Your task to perform on an android device: open app "Etsy: Buy & Sell Unique Items" (install if not already installed) Image 0: 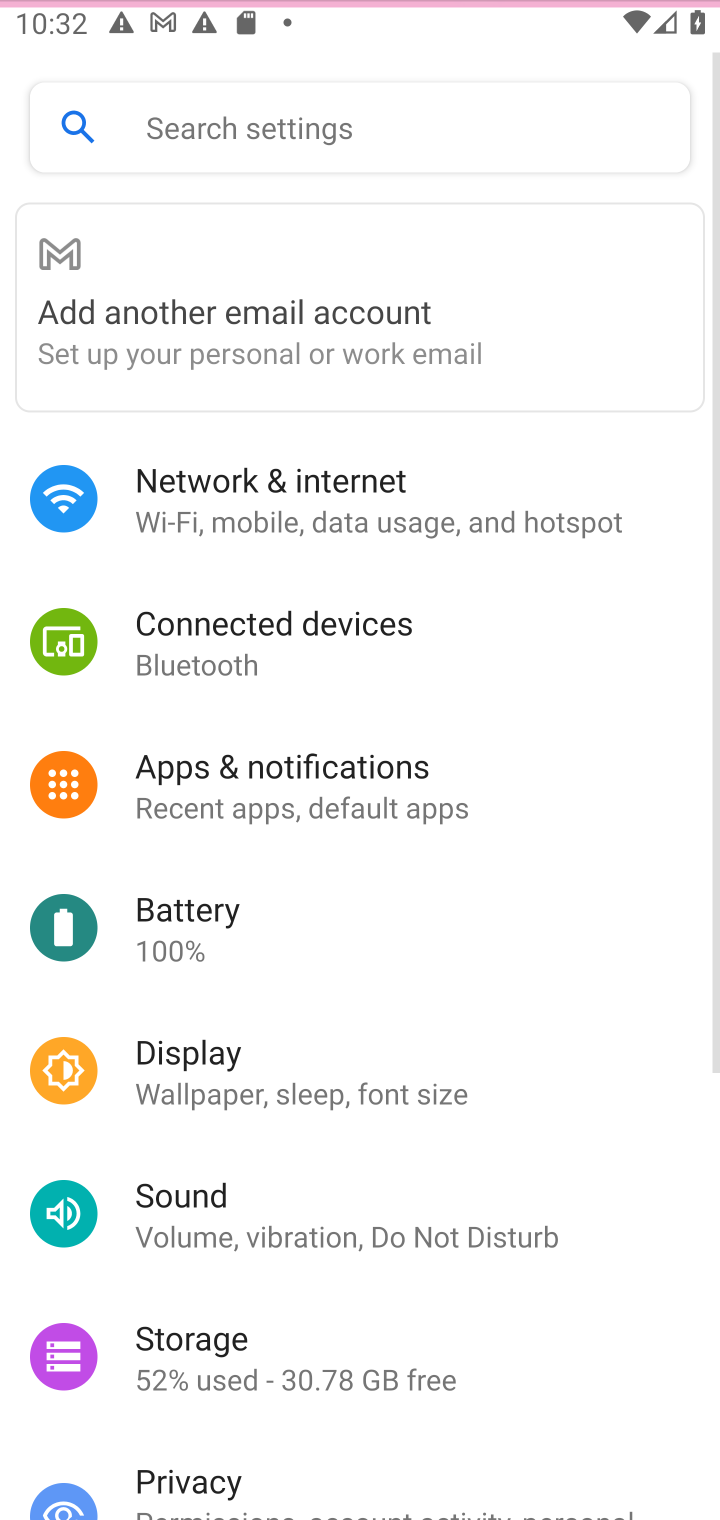
Step 0: press home button
Your task to perform on an android device: open app "Etsy: Buy & Sell Unique Items" (install if not already installed) Image 1: 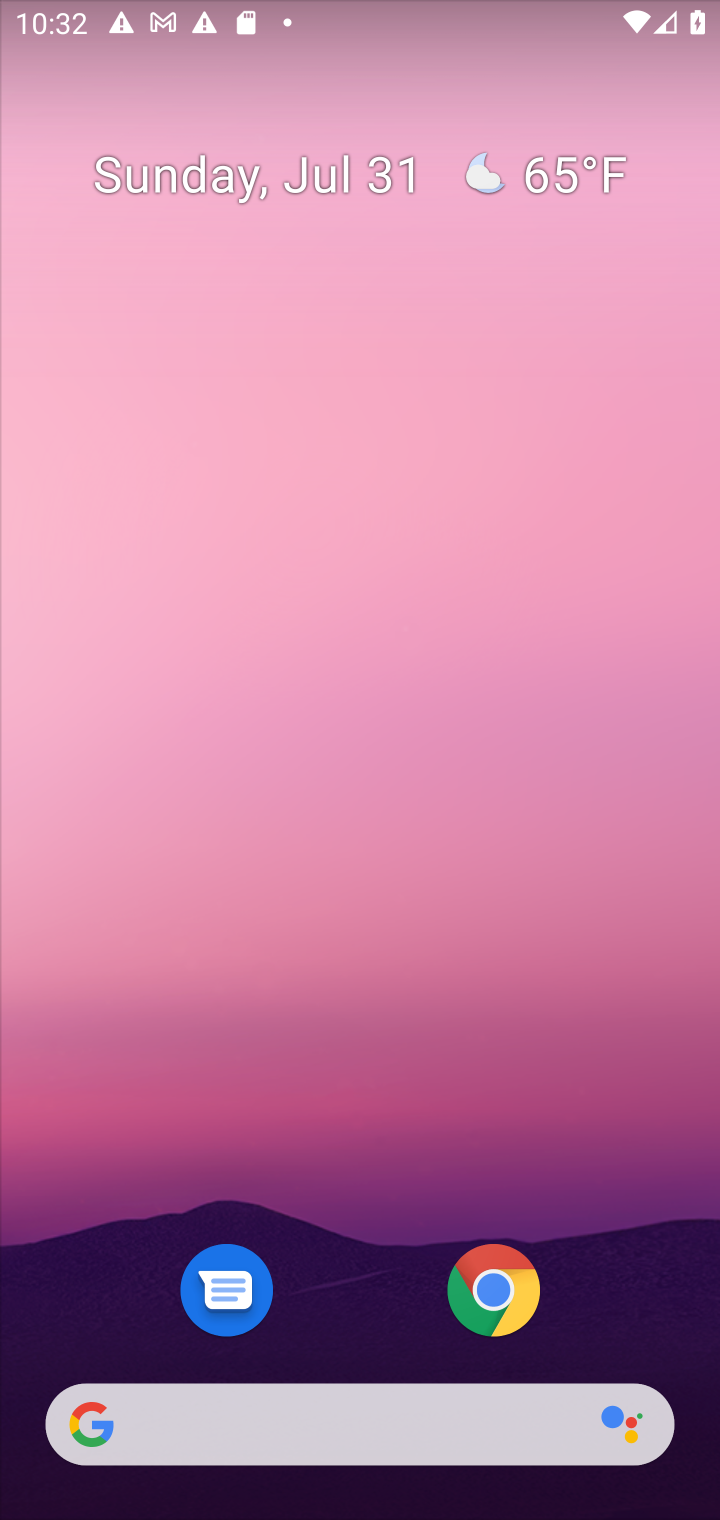
Step 1: drag from (616, 846) to (614, 145)
Your task to perform on an android device: open app "Etsy: Buy & Sell Unique Items" (install if not already installed) Image 2: 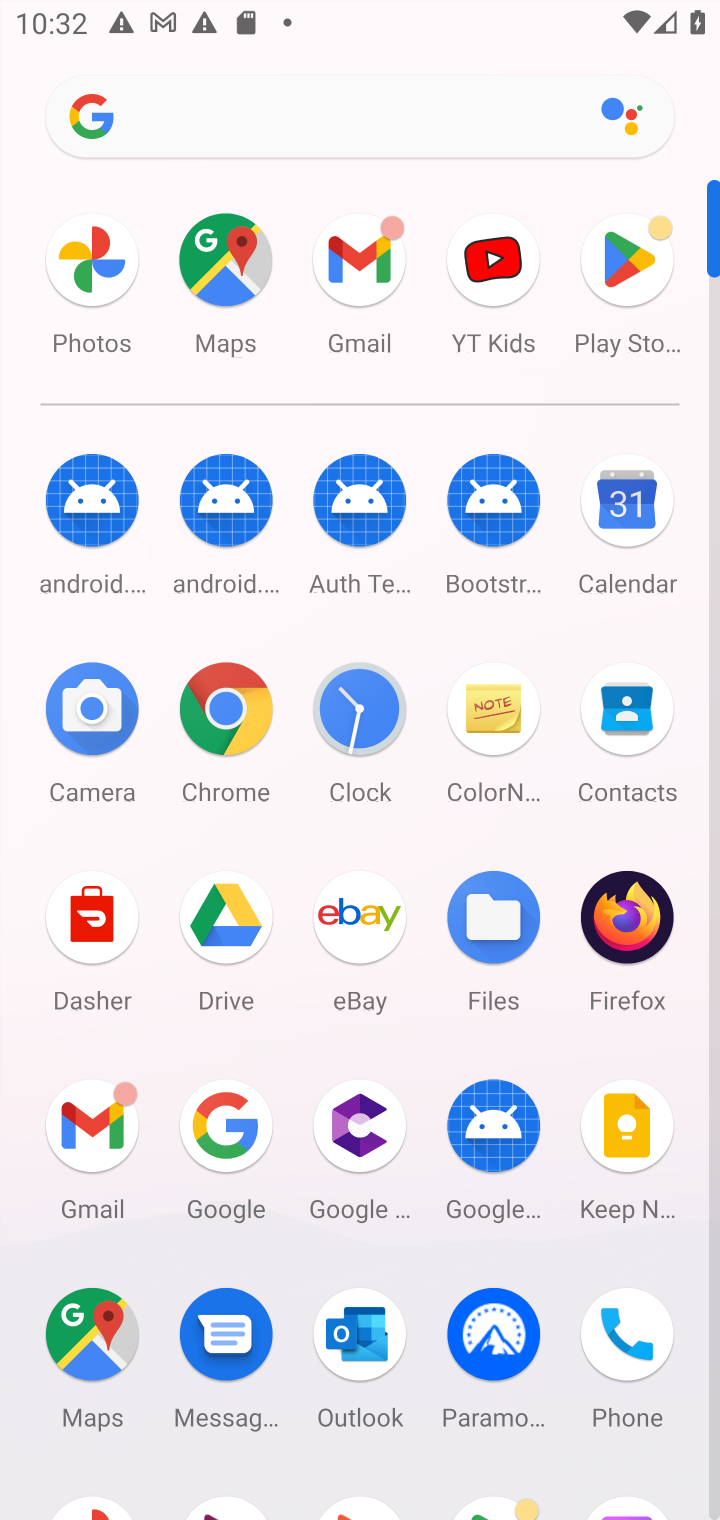
Step 2: click (641, 261)
Your task to perform on an android device: open app "Etsy: Buy & Sell Unique Items" (install if not already installed) Image 3: 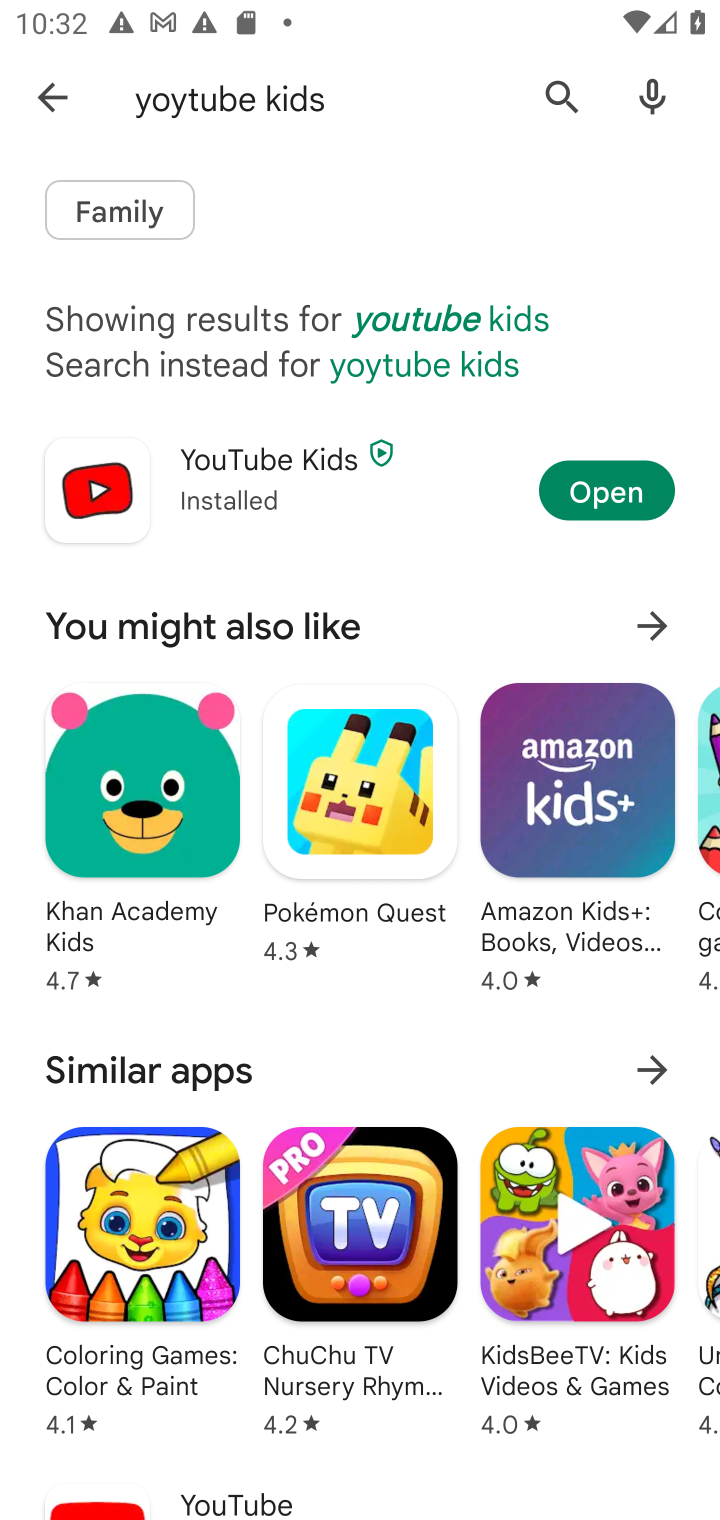
Step 3: click (556, 94)
Your task to perform on an android device: open app "Etsy: Buy & Sell Unique Items" (install if not already installed) Image 4: 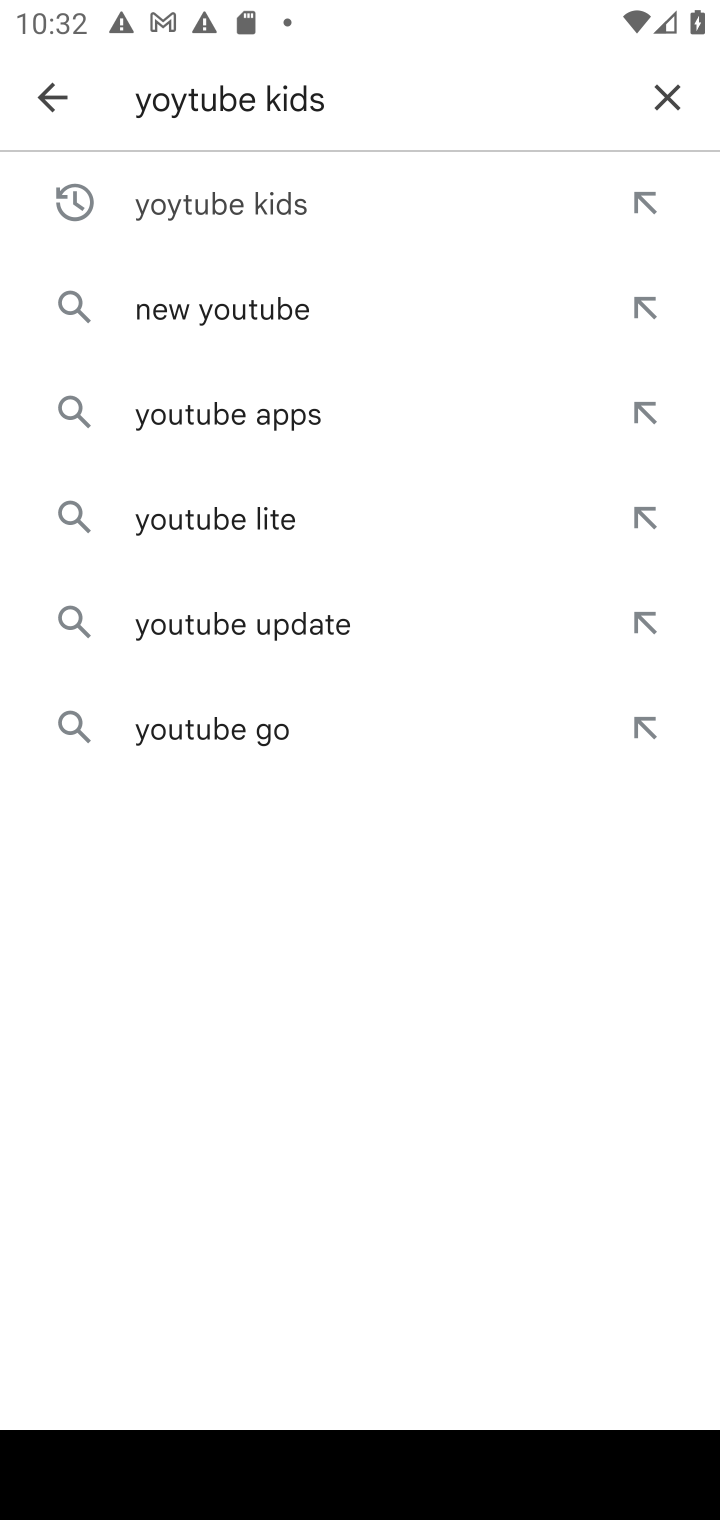
Step 4: click (668, 89)
Your task to perform on an android device: open app "Etsy: Buy & Sell Unique Items" (install if not already installed) Image 5: 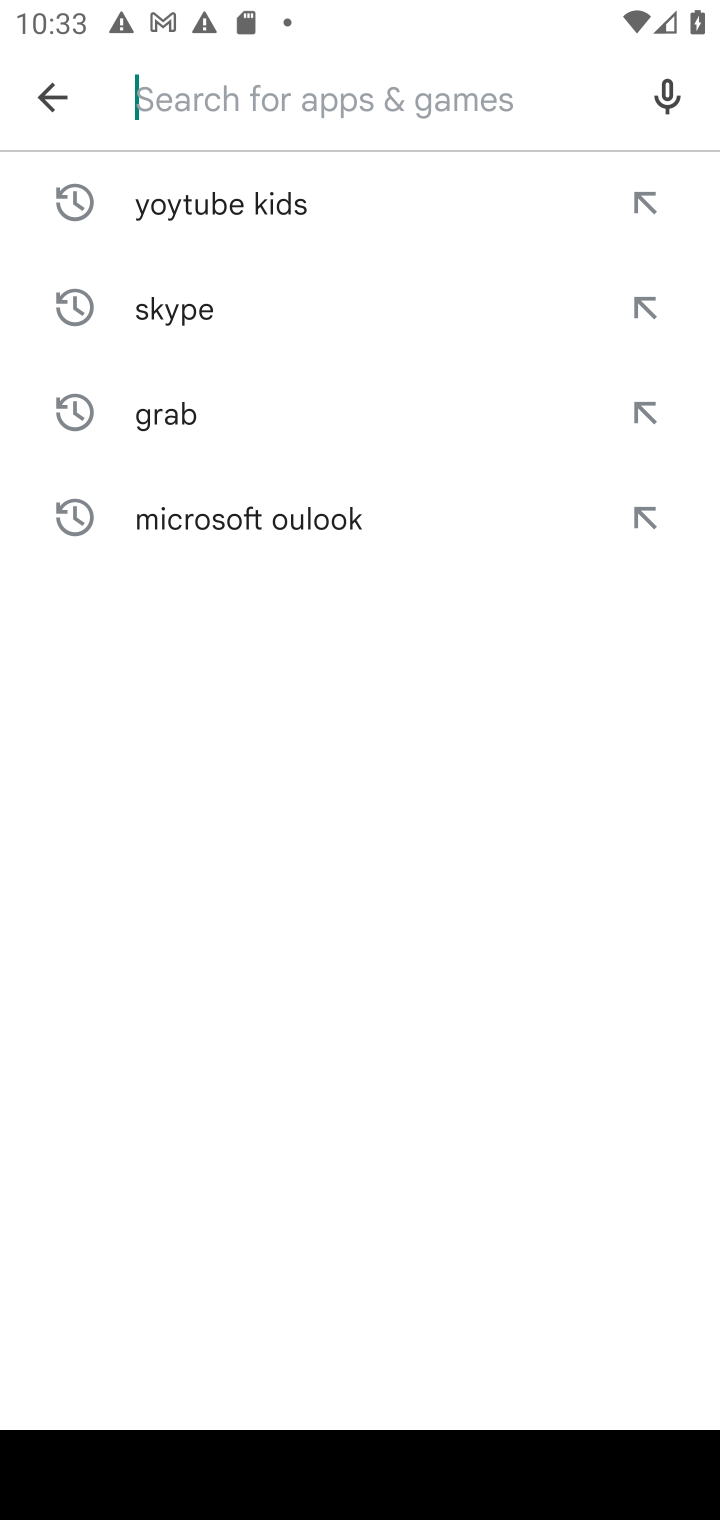
Step 5: type "Etsy: Buy & Sell Unique Items"
Your task to perform on an android device: open app "Etsy: Buy & Sell Unique Items" (install if not already installed) Image 6: 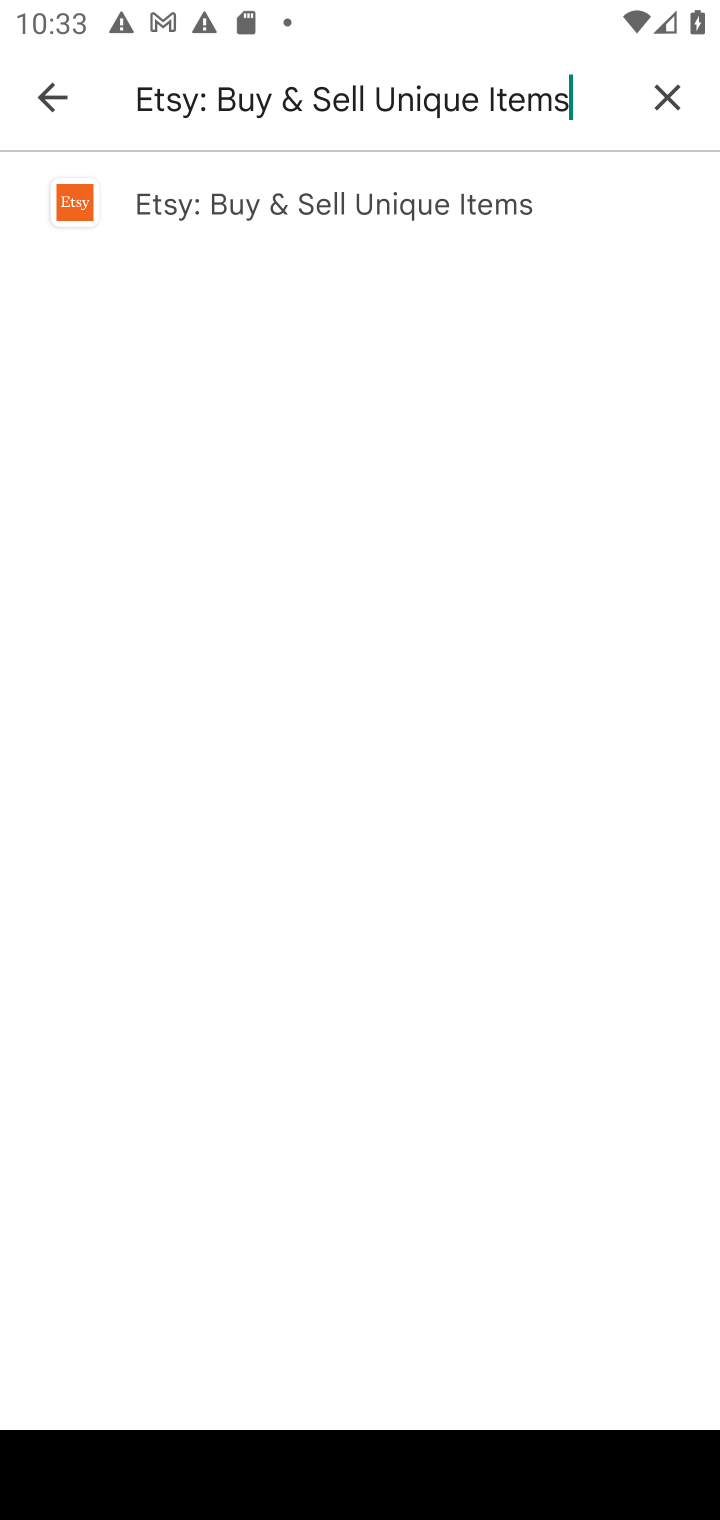
Step 6: click (362, 220)
Your task to perform on an android device: open app "Etsy: Buy & Sell Unique Items" (install if not already installed) Image 7: 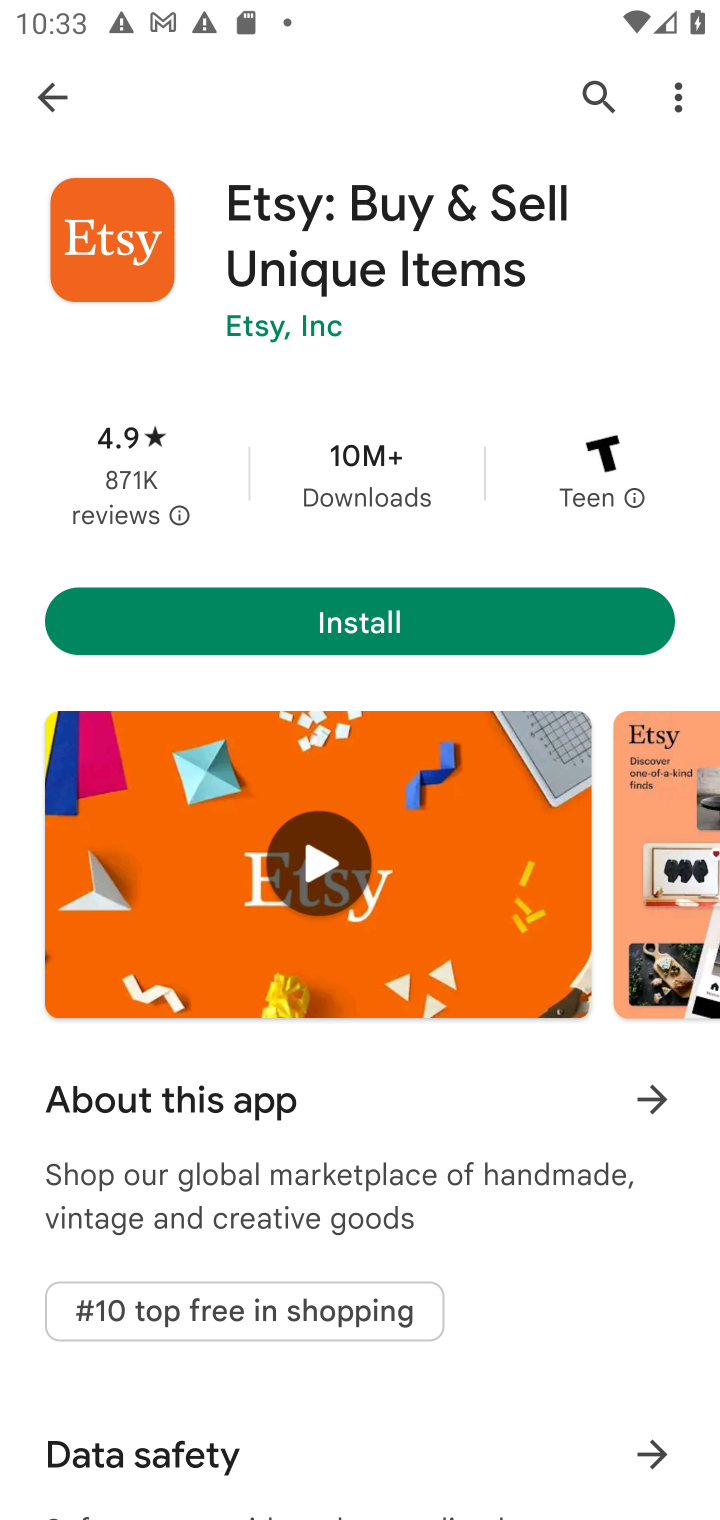
Step 7: click (453, 632)
Your task to perform on an android device: open app "Etsy: Buy & Sell Unique Items" (install if not already installed) Image 8: 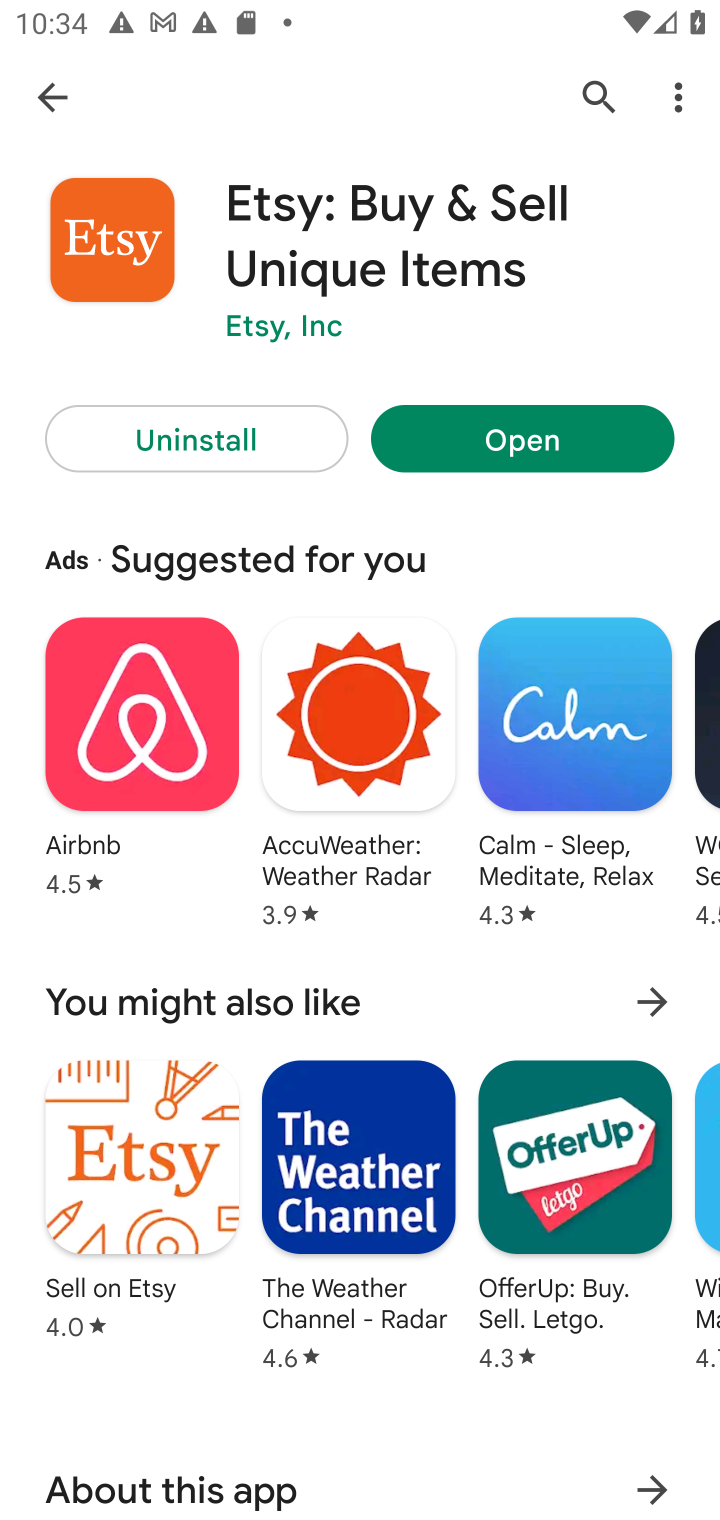
Step 8: click (574, 430)
Your task to perform on an android device: open app "Etsy: Buy & Sell Unique Items" (install if not already installed) Image 9: 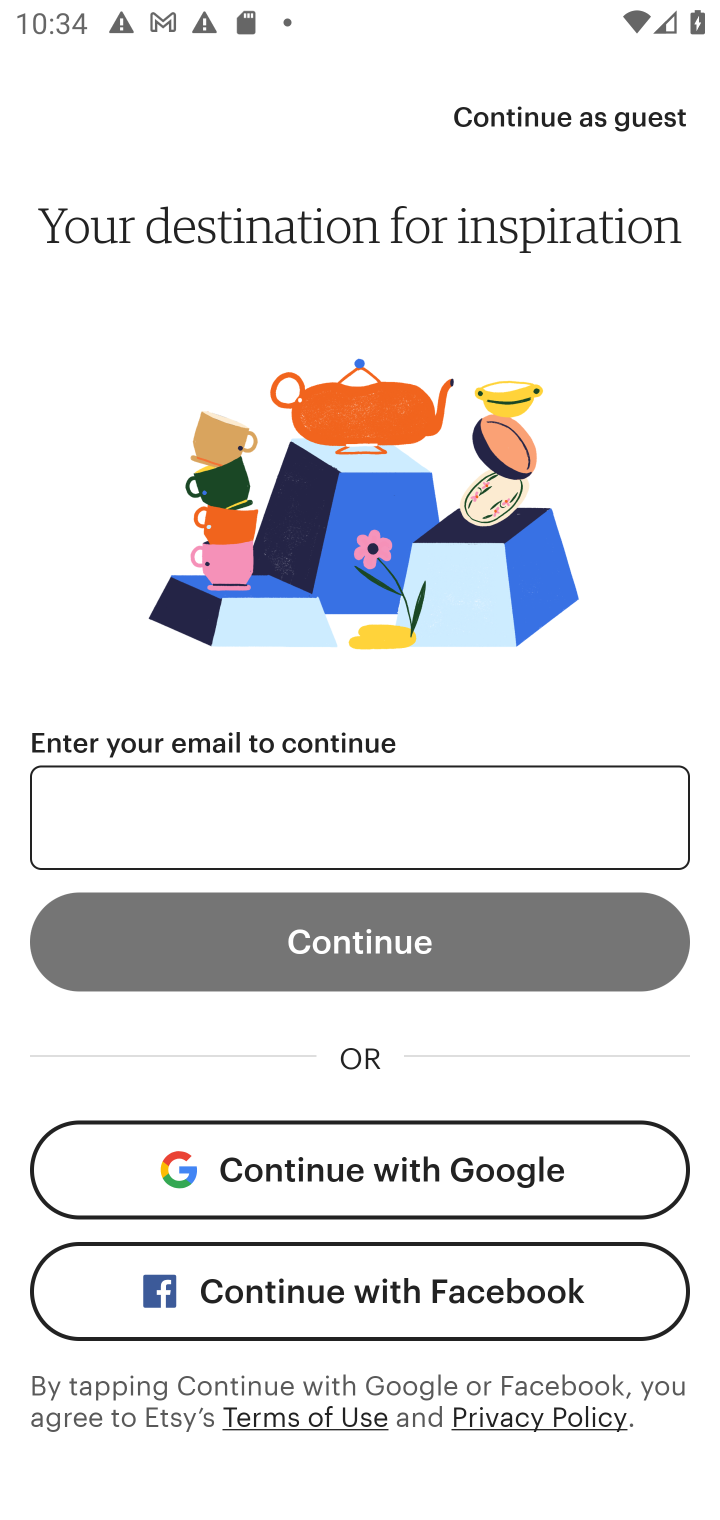
Step 9: task complete